Your task to perform on an android device: empty trash in the gmail app Image 0: 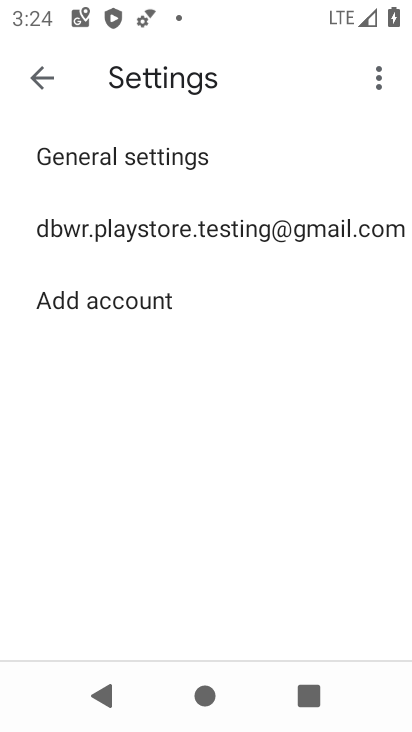
Step 0: click (24, 77)
Your task to perform on an android device: empty trash in the gmail app Image 1: 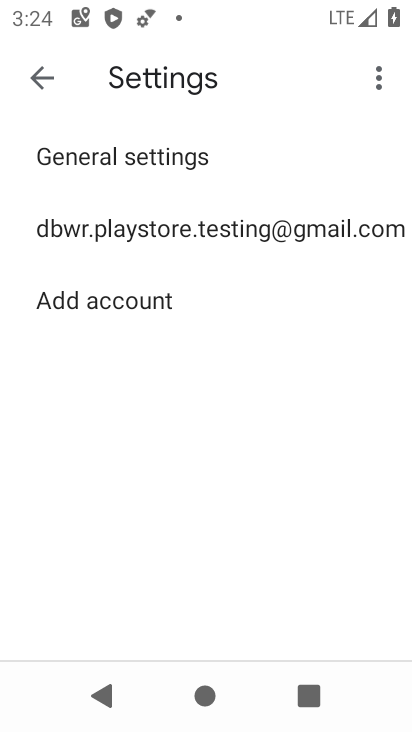
Step 1: click (46, 68)
Your task to perform on an android device: empty trash in the gmail app Image 2: 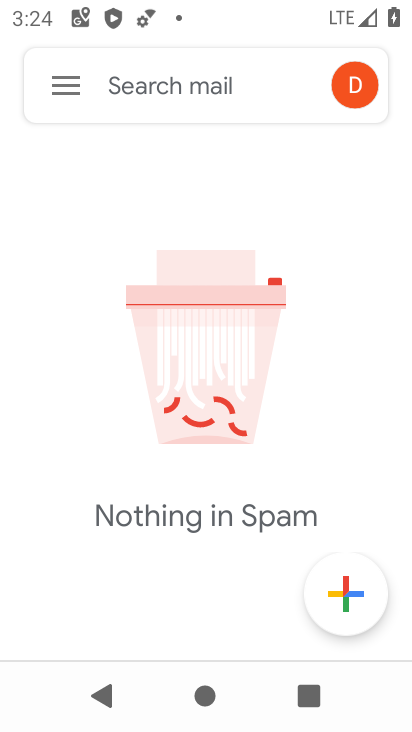
Step 2: click (65, 87)
Your task to perform on an android device: empty trash in the gmail app Image 3: 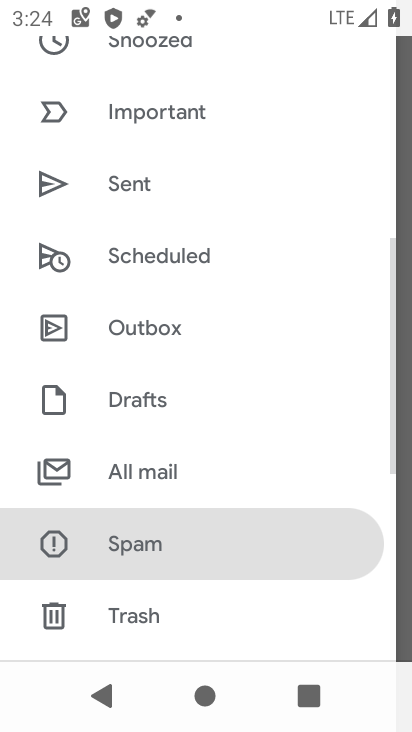
Step 3: click (137, 620)
Your task to perform on an android device: empty trash in the gmail app Image 4: 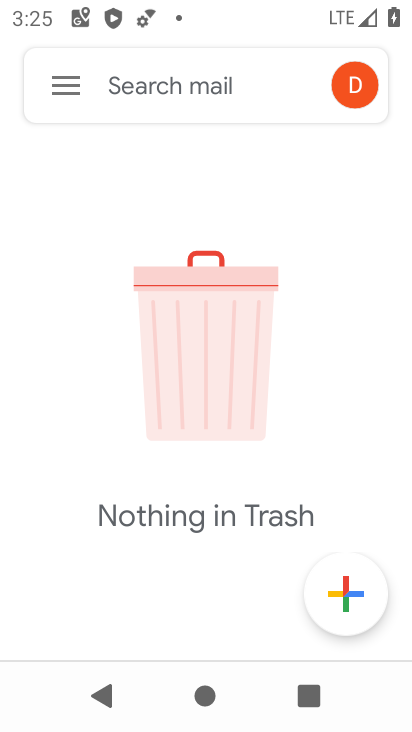
Step 4: task complete